Your task to perform on an android device: see sites visited before in the chrome app Image 0: 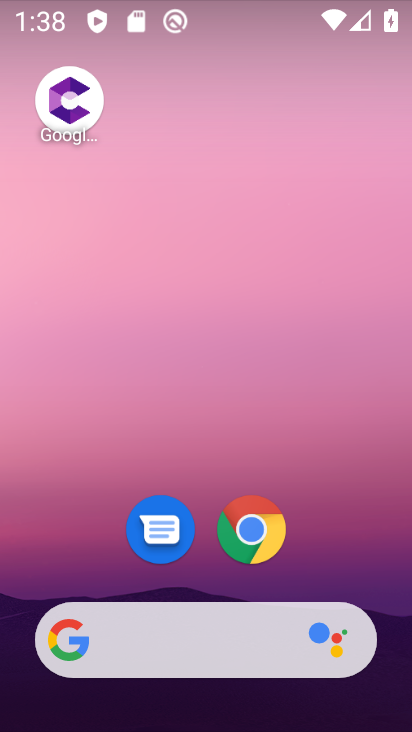
Step 0: click (269, 519)
Your task to perform on an android device: see sites visited before in the chrome app Image 1: 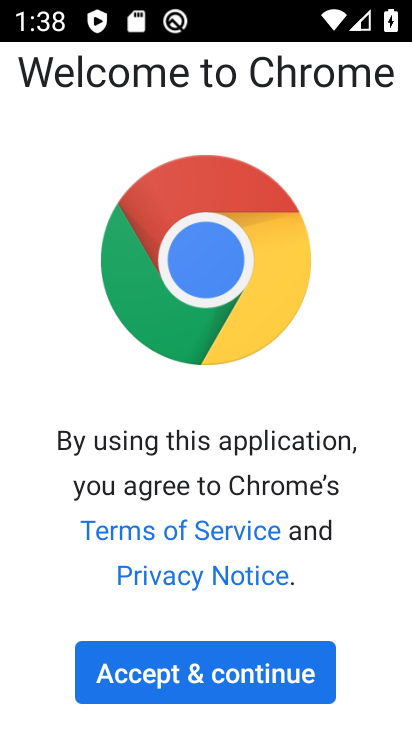
Step 1: click (186, 687)
Your task to perform on an android device: see sites visited before in the chrome app Image 2: 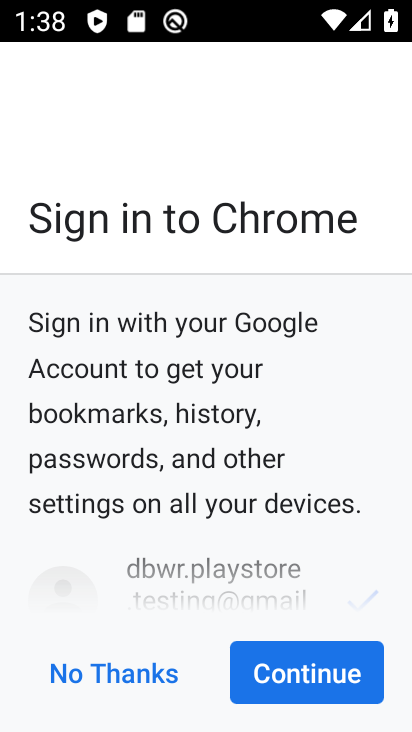
Step 2: click (120, 675)
Your task to perform on an android device: see sites visited before in the chrome app Image 3: 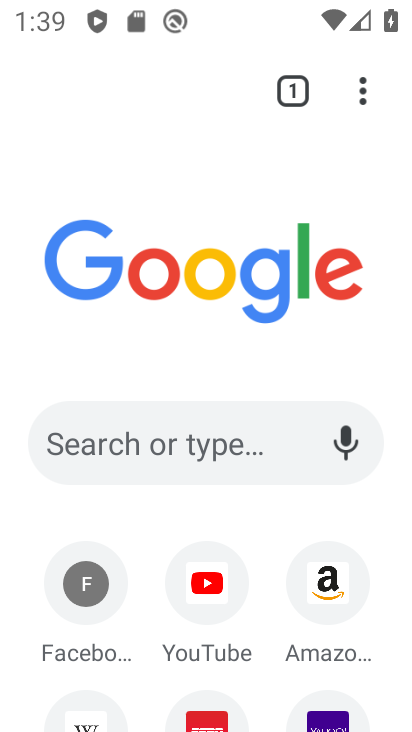
Step 3: click (364, 92)
Your task to perform on an android device: see sites visited before in the chrome app Image 4: 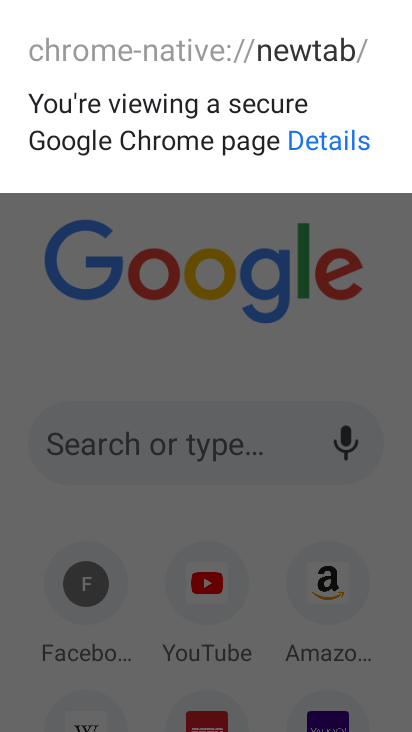
Step 4: click (61, 365)
Your task to perform on an android device: see sites visited before in the chrome app Image 5: 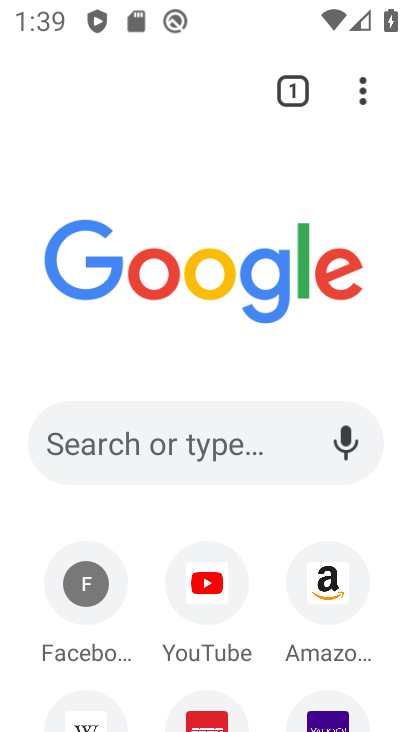
Step 5: click (362, 91)
Your task to perform on an android device: see sites visited before in the chrome app Image 6: 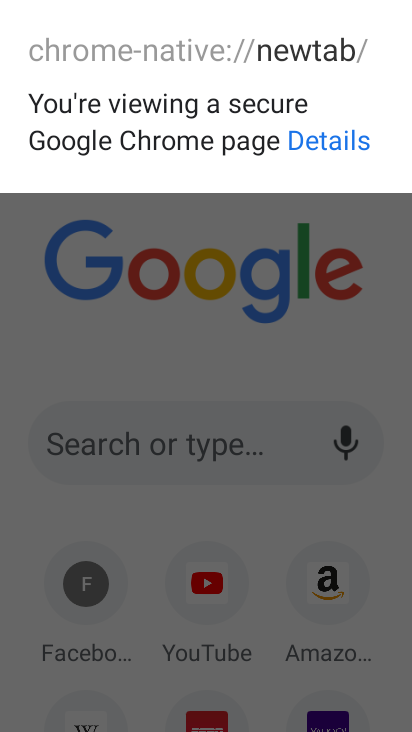
Step 6: click (297, 356)
Your task to perform on an android device: see sites visited before in the chrome app Image 7: 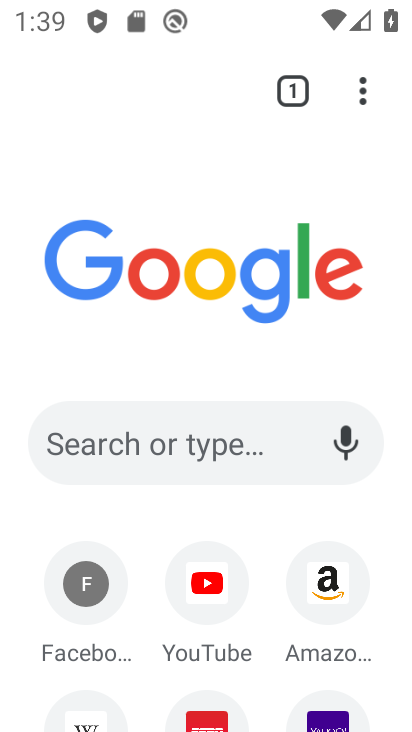
Step 7: click (348, 91)
Your task to perform on an android device: see sites visited before in the chrome app Image 8: 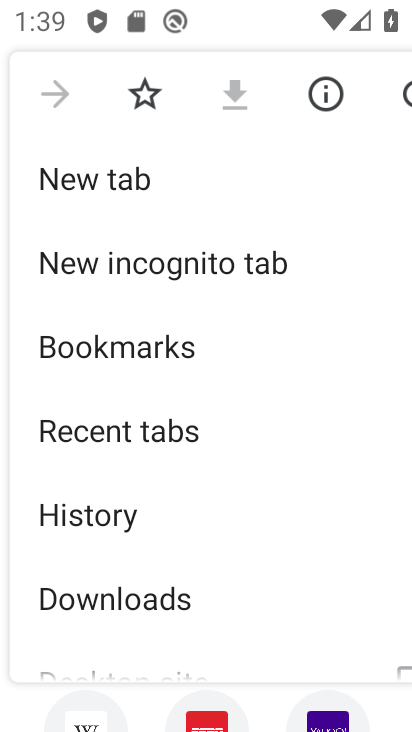
Step 8: drag from (101, 635) to (176, 363)
Your task to perform on an android device: see sites visited before in the chrome app Image 9: 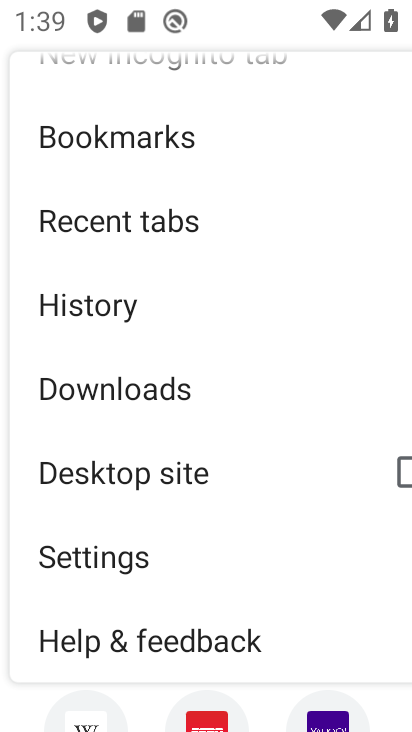
Step 9: click (71, 307)
Your task to perform on an android device: see sites visited before in the chrome app Image 10: 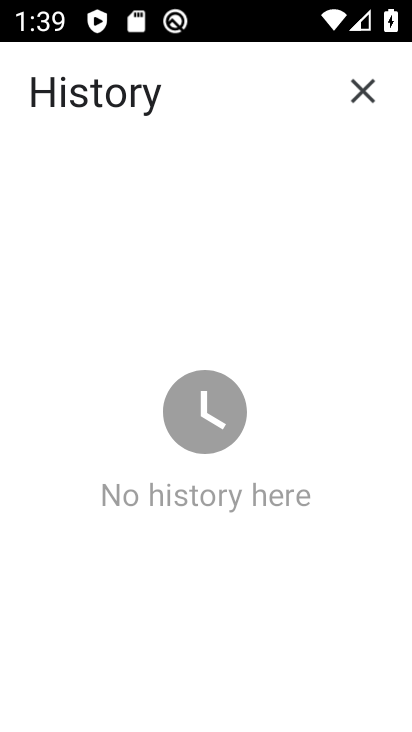
Step 10: task complete